Your task to perform on an android device: Search for Mexican restaurants on Maps Image 0: 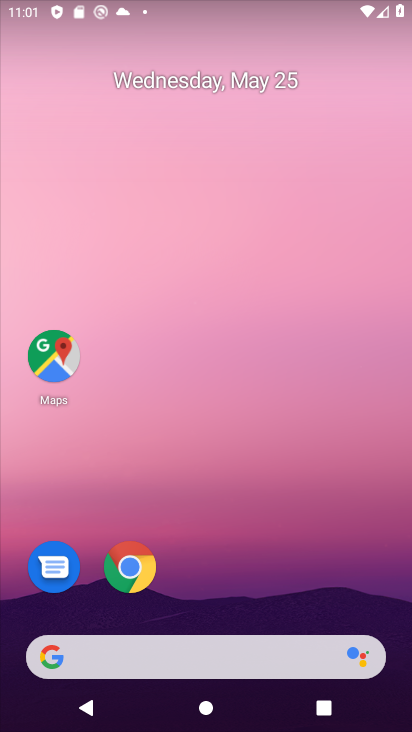
Step 0: click (55, 350)
Your task to perform on an android device: Search for Mexican restaurants on Maps Image 1: 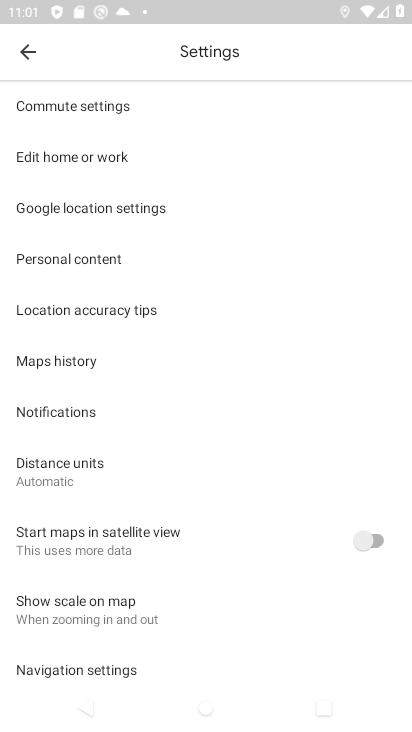
Step 1: click (28, 39)
Your task to perform on an android device: Search for Mexican restaurants on Maps Image 2: 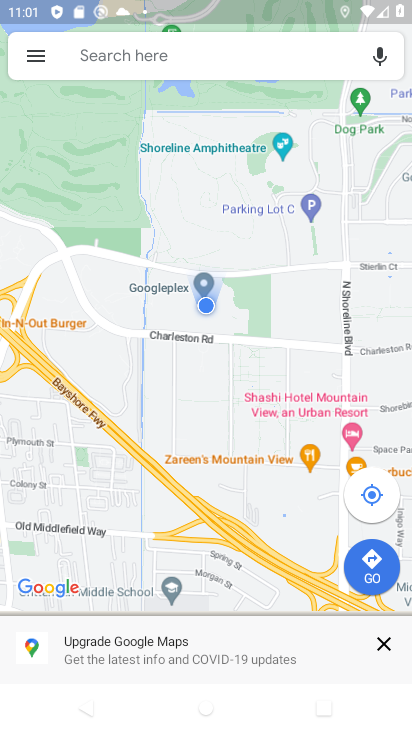
Step 2: click (204, 58)
Your task to perform on an android device: Search for Mexican restaurants on Maps Image 3: 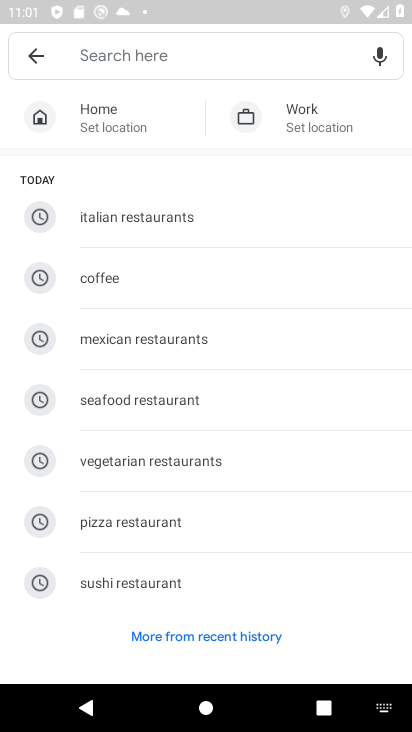
Step 3: click (207, 335)
Your task to perform on an android device: Search for Mexican restaurants on Maps Image 4: 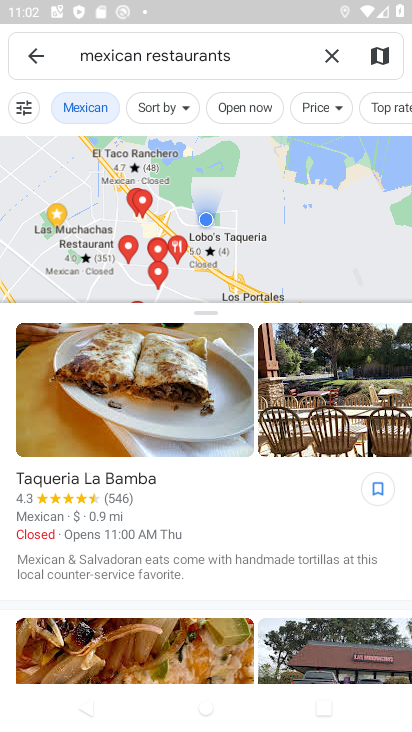
Step 4: task complete